Your task to perform on an android device: move a message to another label in the gmail app Image 0: 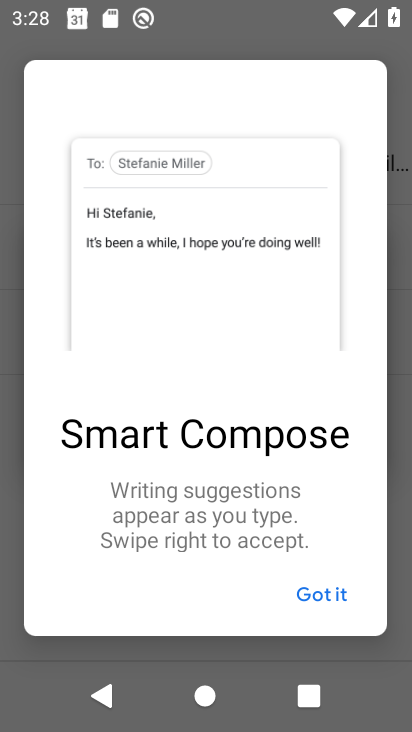
Step 0: press home button
Your task to perform on an android device: move a message to another label in the gmail app Image 1: 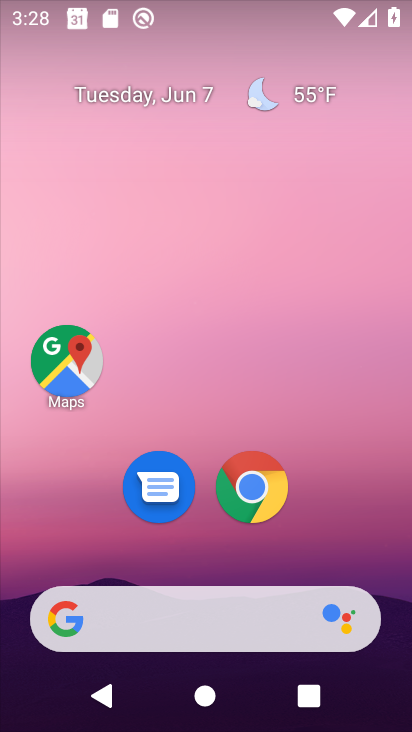
Step 1: drag from (308, 540) to (276, 105)
Your task to perform on an android device: move a message to another label in the gmail app Image 2: 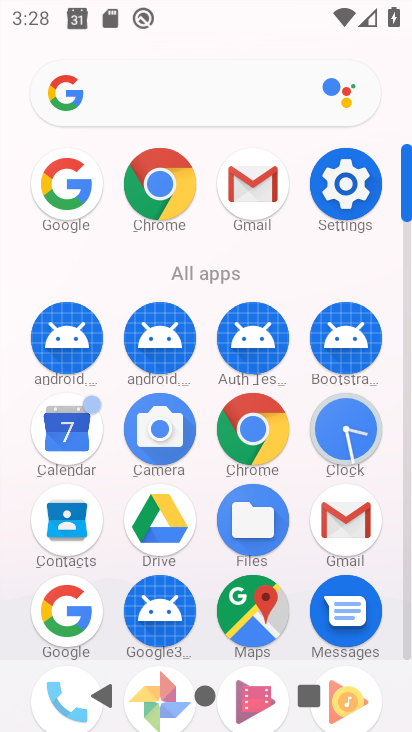
Step 2: click (335, 535)
Your task to perform on an android device: move a message to another label in the gmail app Image 3: 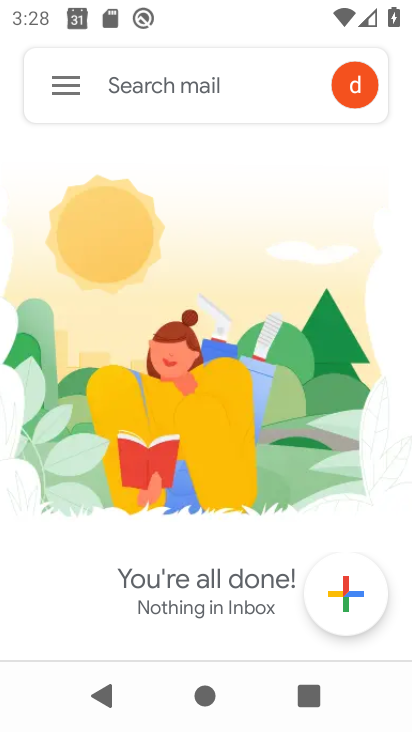
Step 3: click (52, 97)
Your task to perform on an android device: move a message to another label in the gmail app Image 4: 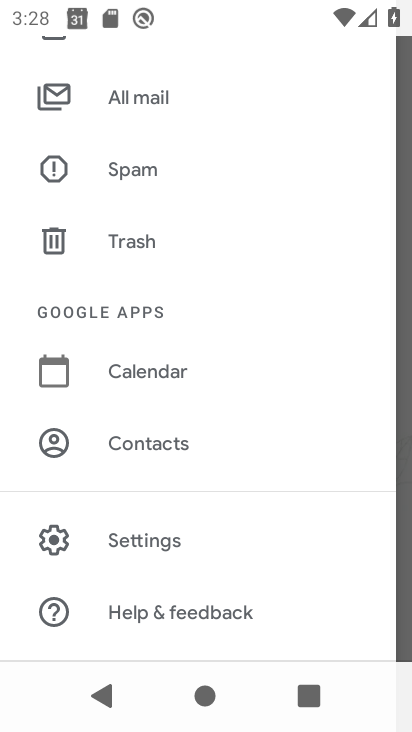
Step 4: click (142, 106)
Your task to perform on an android device: move a message to another label in the gmail app Image 5: 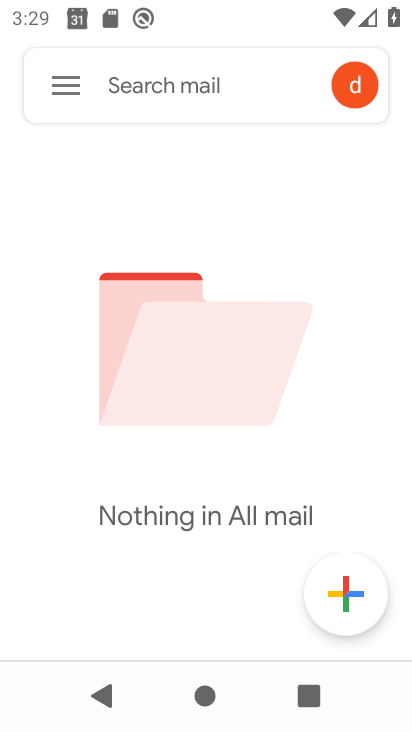
Step 5: task complete